Your task to perform on an android device: Go to display settings Image 0: 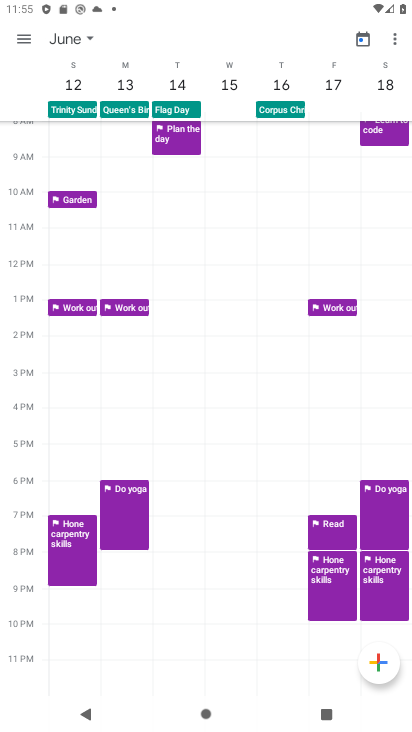
Step 0: press home button
Your task to perform on an android device: Go to display settings Image 1: 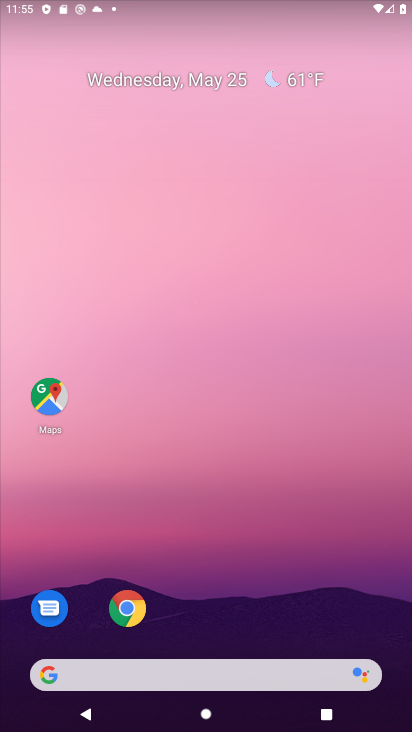
Step 1: drag from (348, 626) to (305, 218)
Your task to perform on an android device: Go to display settings Image 2: 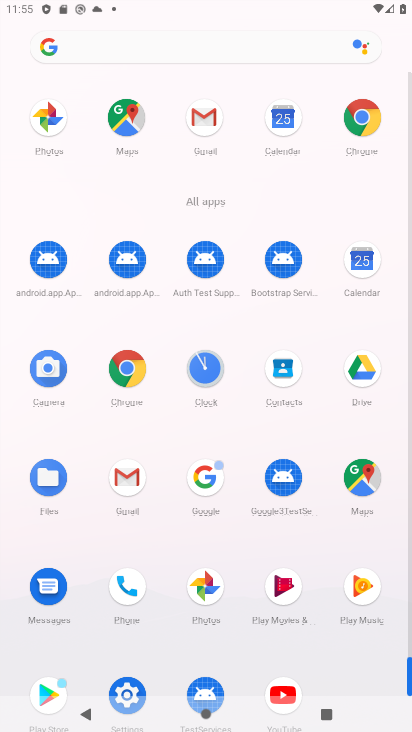
Step 2: click (411, 651)
Your task to perform on an android device: Go to display settings Image 3: 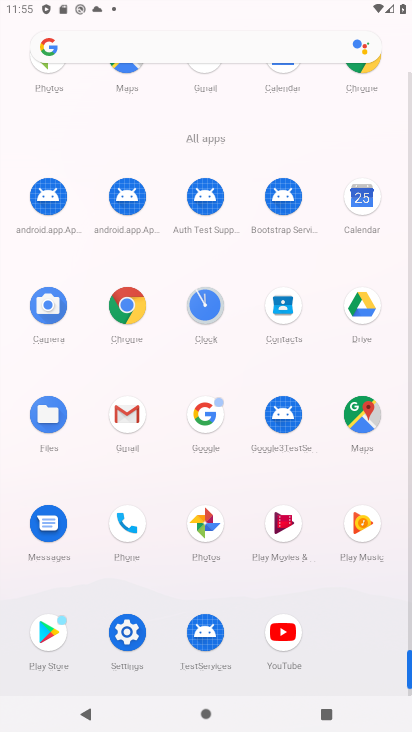
Step 3: click (124, 633)
Your task to perform on an android device: Go to display settings Image 4: 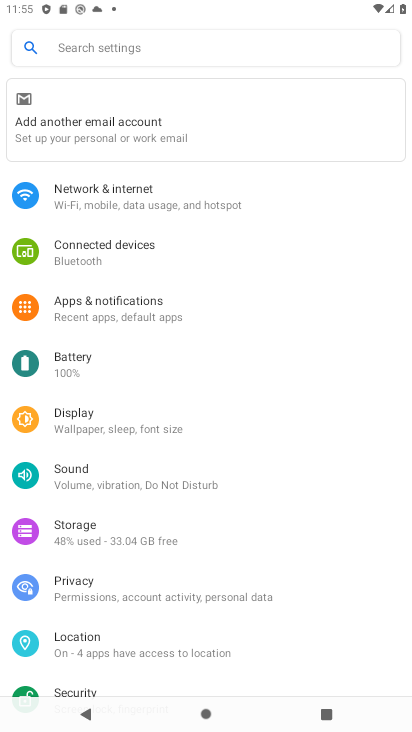
Step 4: click (97, 421)
Your task to perform on an android device: Go to display settings Image 5: 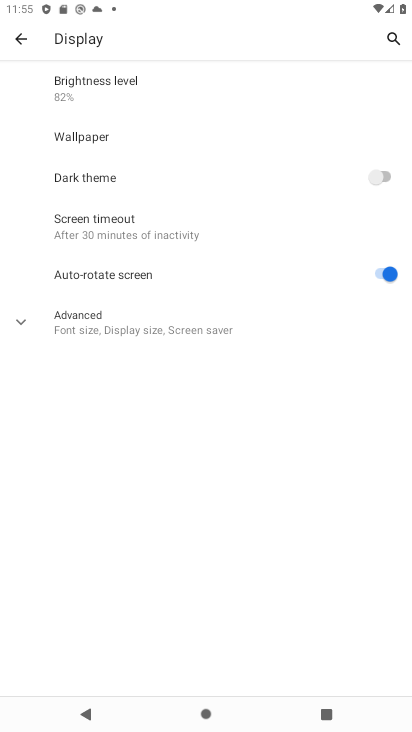
Step 5: click (21, 318)
Your task to perform on an android device: Go to display settings Image 6: 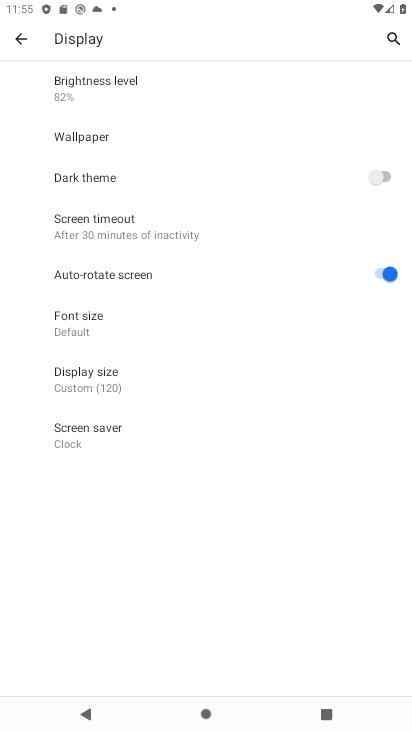
Step 6: task complete